Your task to perform on an android device: turn on showing notifications on the lock screen Image 0: 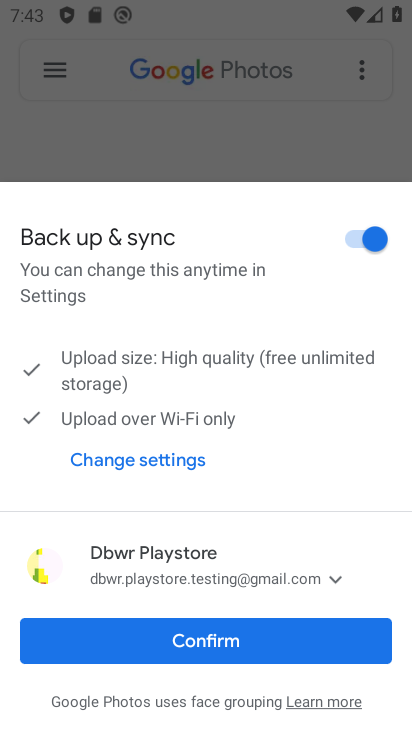
Step 0: press home button
Your task to perform on an android device: turn on showing notifications on the lock screen Image 1: 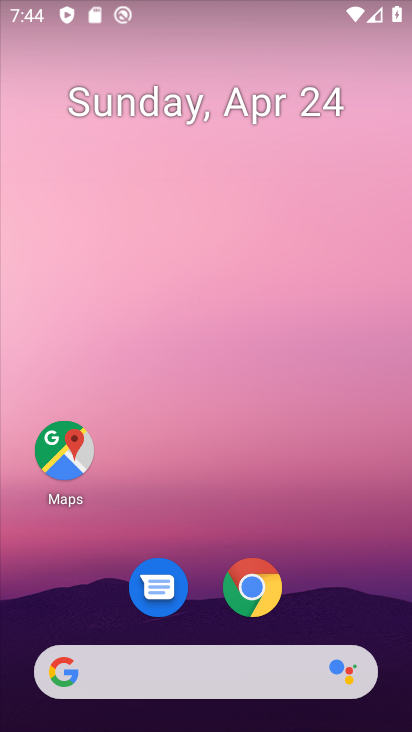
Step 1: drag from (342, 572) to (329, 97)
Your task to perform on an android device: turn on showing notifications on the lock screen Image 2: 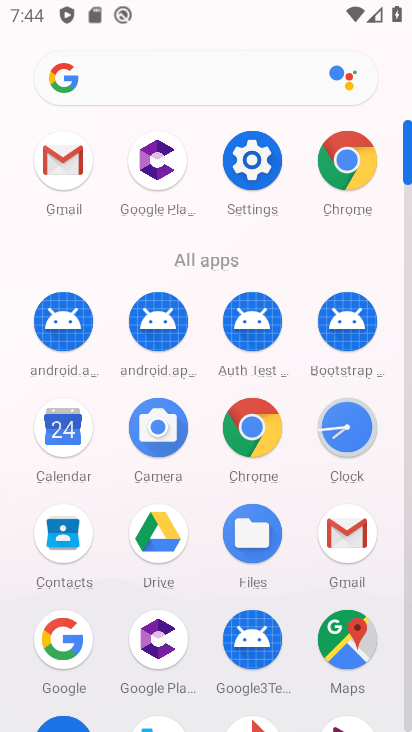
Step 2: click (244, 165)
Your task to perform on an android device: turn on showing notifications on the lock screen Image 3: 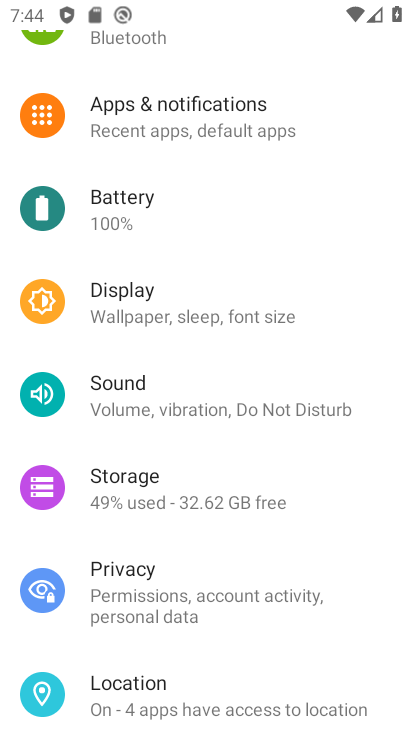
Step 3: click (195, 78)
Your task to perform on an android device: turn on showing notifications on the lock screen Image 4: 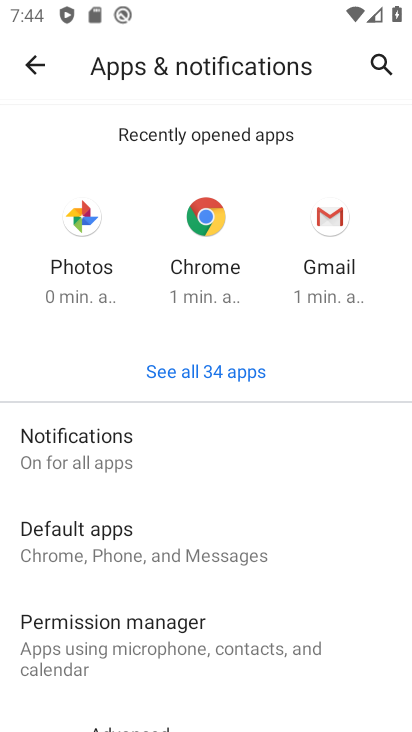
Step 4: click (83, 424)
Your task to perform on an android device: turn on showing notifications on the lock screen Image 5: 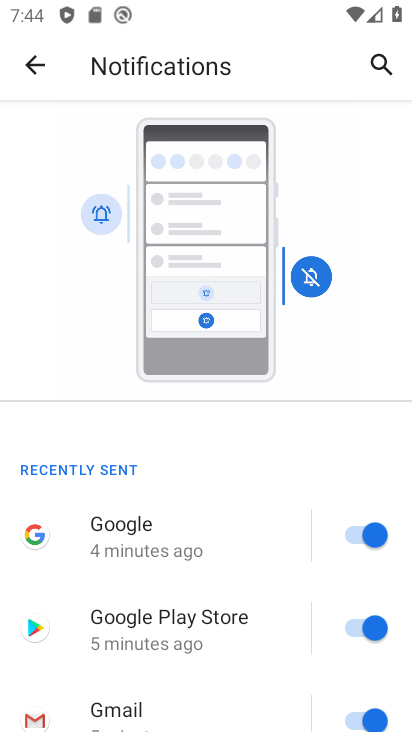
Step 5: drag from (270, 637) to (255, 213)
Your task to perform on an android device: turn on showing notifications on the lock screen Image 6: 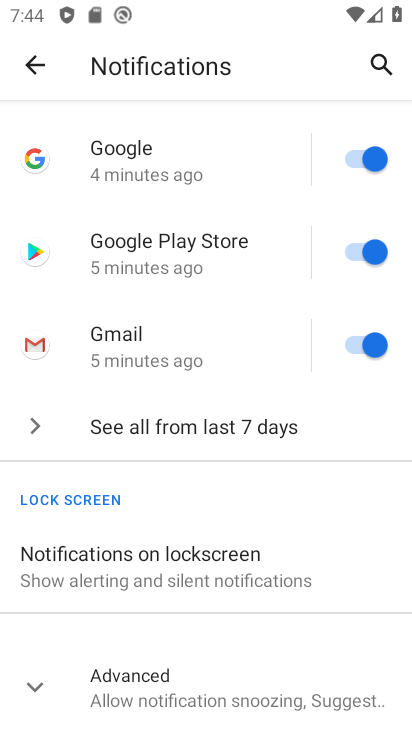
Step 6: click (209, 571)
Your task to perform on an android device: turn on showing notifications on the lock screen Image 7: 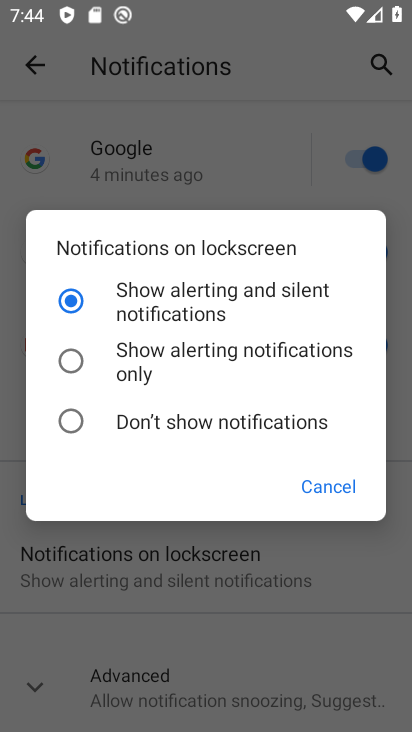
Step 7: task complete